Your task to perform on an android device: turn off data saver in the chrome app Image 0: 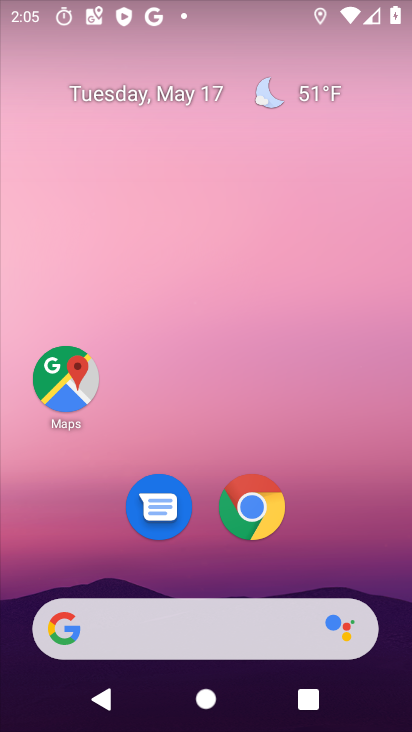
Step 0: click (250, 507)
Your task to perform on an android device: turn off data saver in the chrome app Image 1: 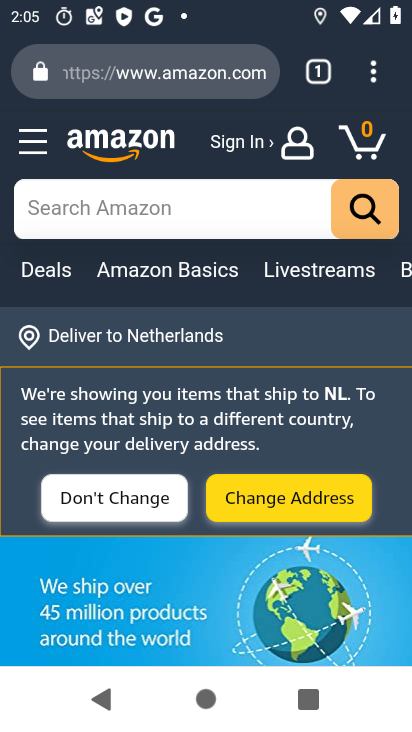
Step 1: click (368, 79)
Your task to perform on an android device: turn off data saver in the chrome app Image 2: 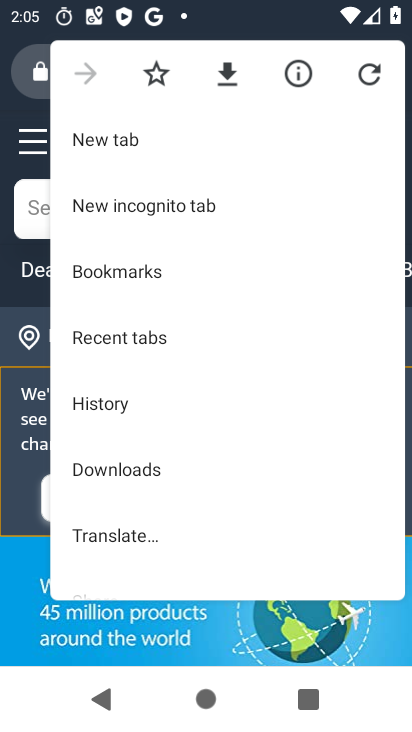
Step 2: drag from (150, 515) to (211, 185)
Your task to perform on an android device: turn off data saver in the chrome app Image 3: 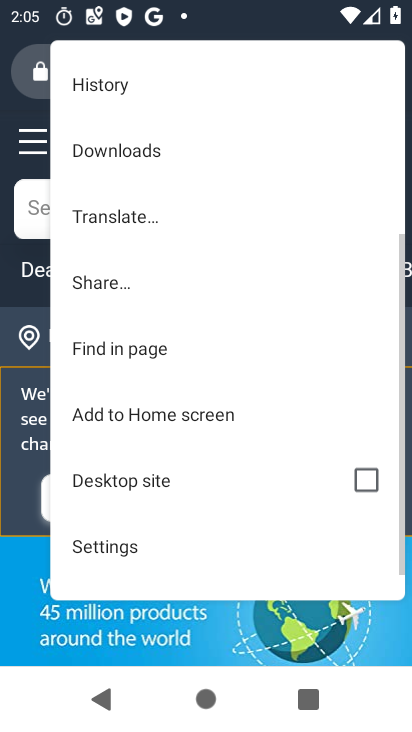
Step 3: drag from (203, 480) to (202, 325)
Your task to perform on an android device: turn off data saver in the chrome app Image 4: 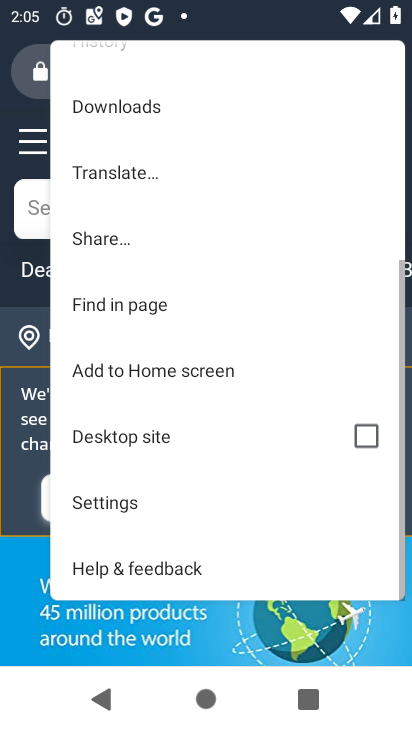
Step 4: click (163, 500)
Your task to perform on an android device: turn off data saver in the chrome app Image 5: 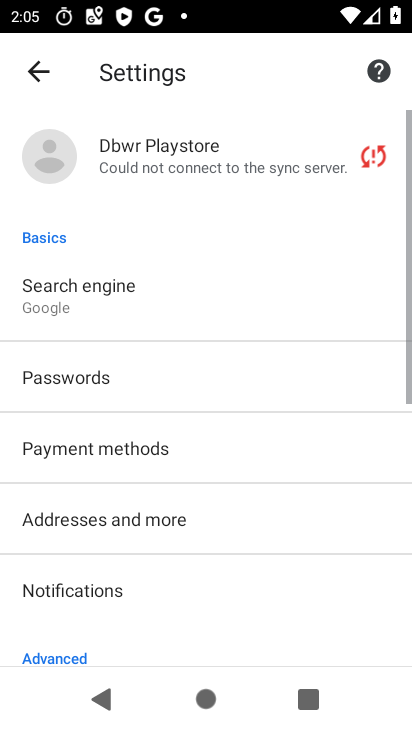
Step 5: drag from (236, 608) to (170, 216)
Your task to perform on an android device: turn off data saver in the chrome app Image 6: 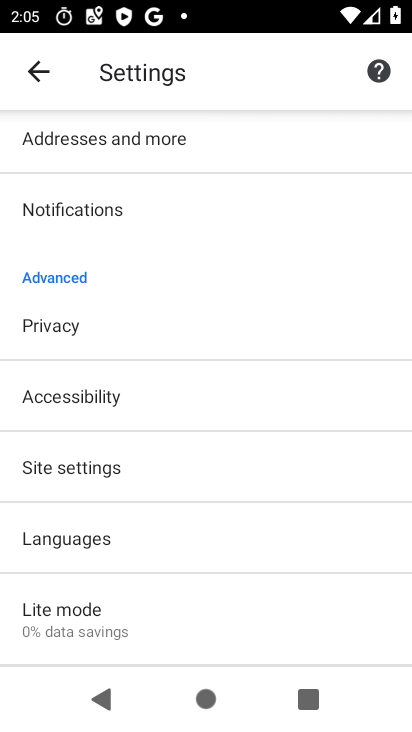
Step 6: click (103, 614)
Your task to perform on an android device: turn off data saver in the chrome app Image 7: 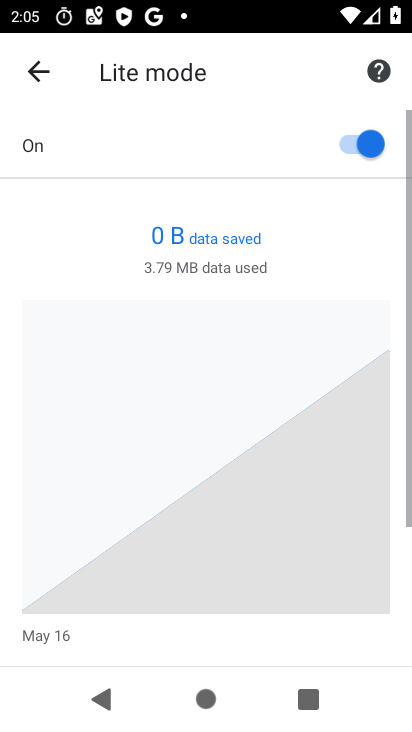
Step 7: click (362, 132)
Your task to perform on an android device: turn off data saver in the chrome app Image 8: 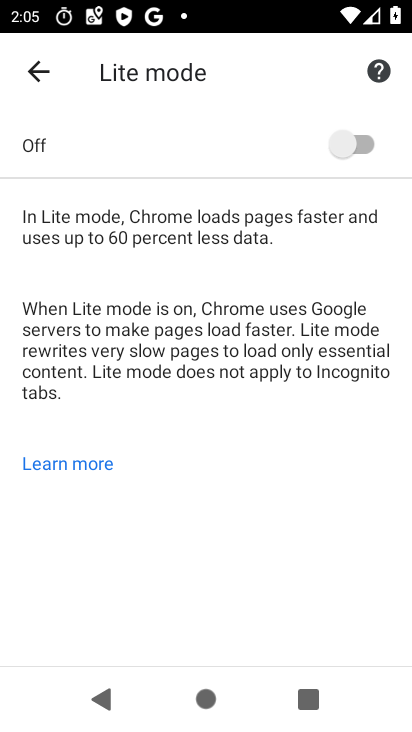
Step 8: task complete